Your task to perform on an android device: open wifi settings Image 0: 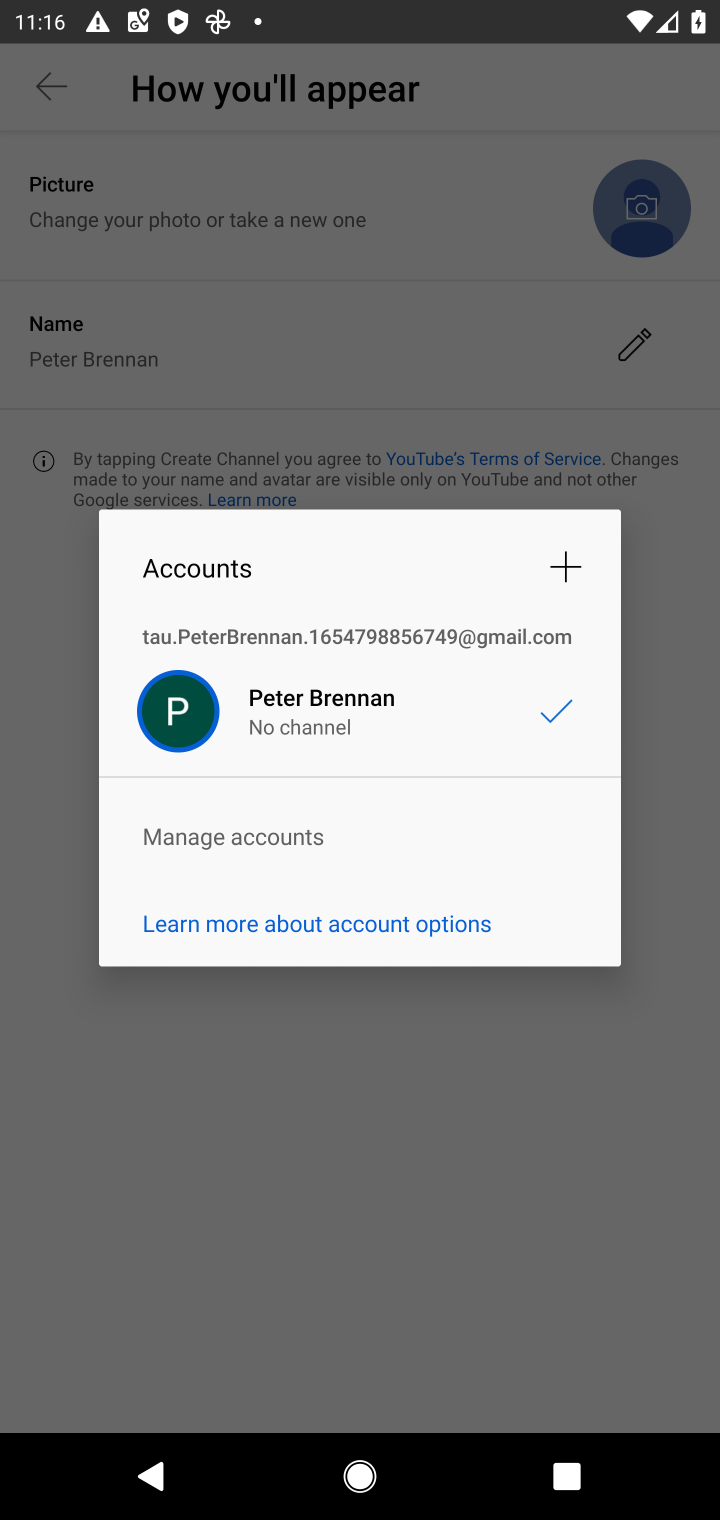
Step 0: press home button
Your task to perform on an android device: open wifi settings Image 1: 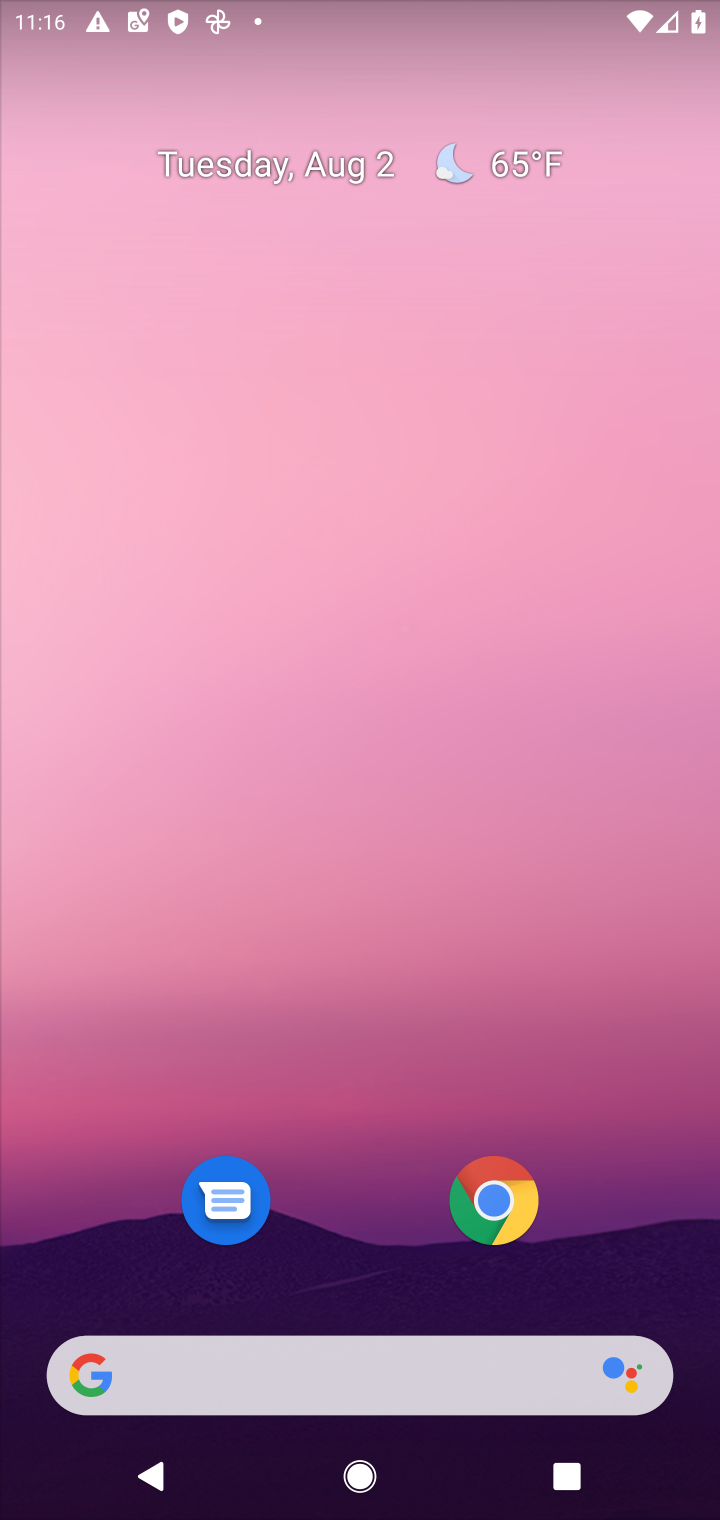
Step 1: drag from (651, 1269) to (599, 245)
Your task to perform on an android device: open wifi settings Image 2: 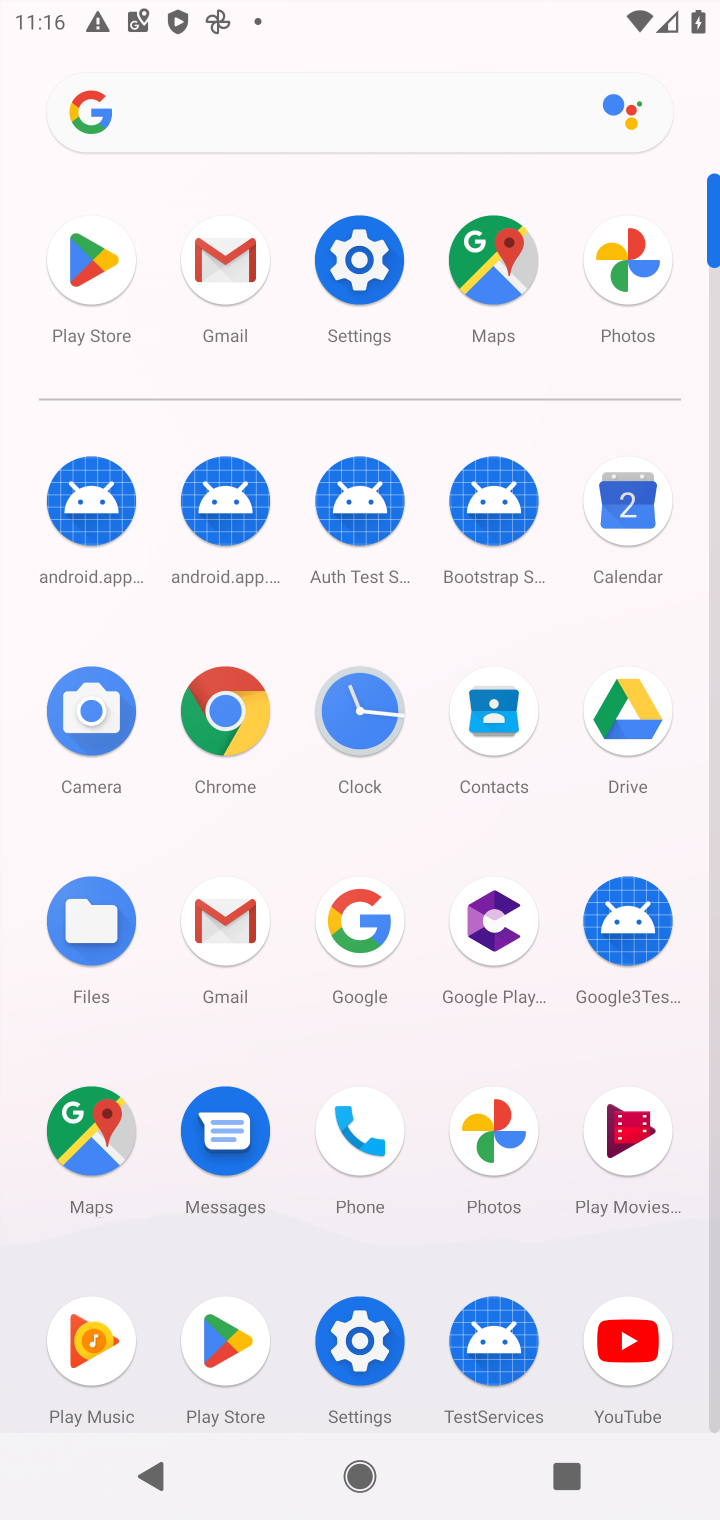
Step 2: click (362, 1342)
Your task to perform on an android device: open wifi settings Image 3: 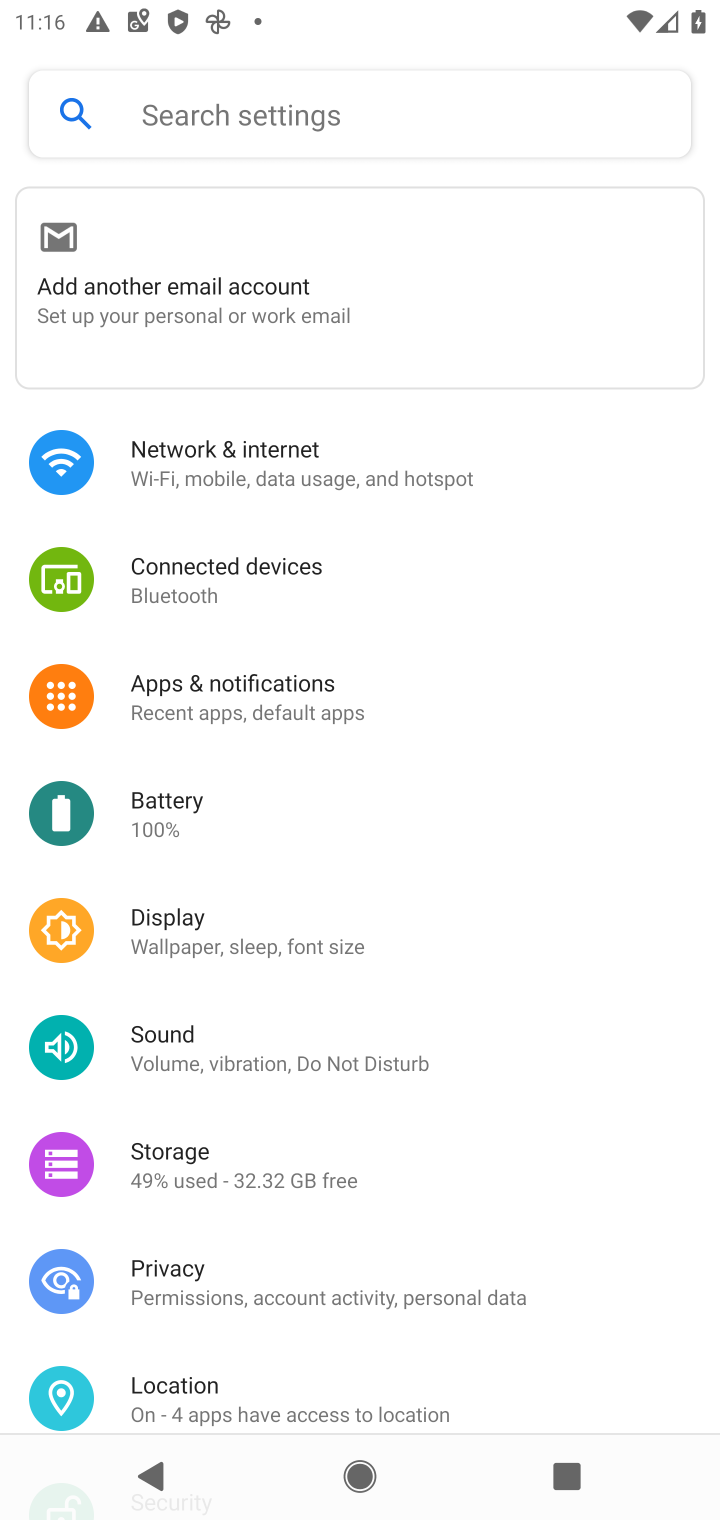
Step 3: click (196, 447)
Your task to perform on an android device: open wifi settings Image 4: 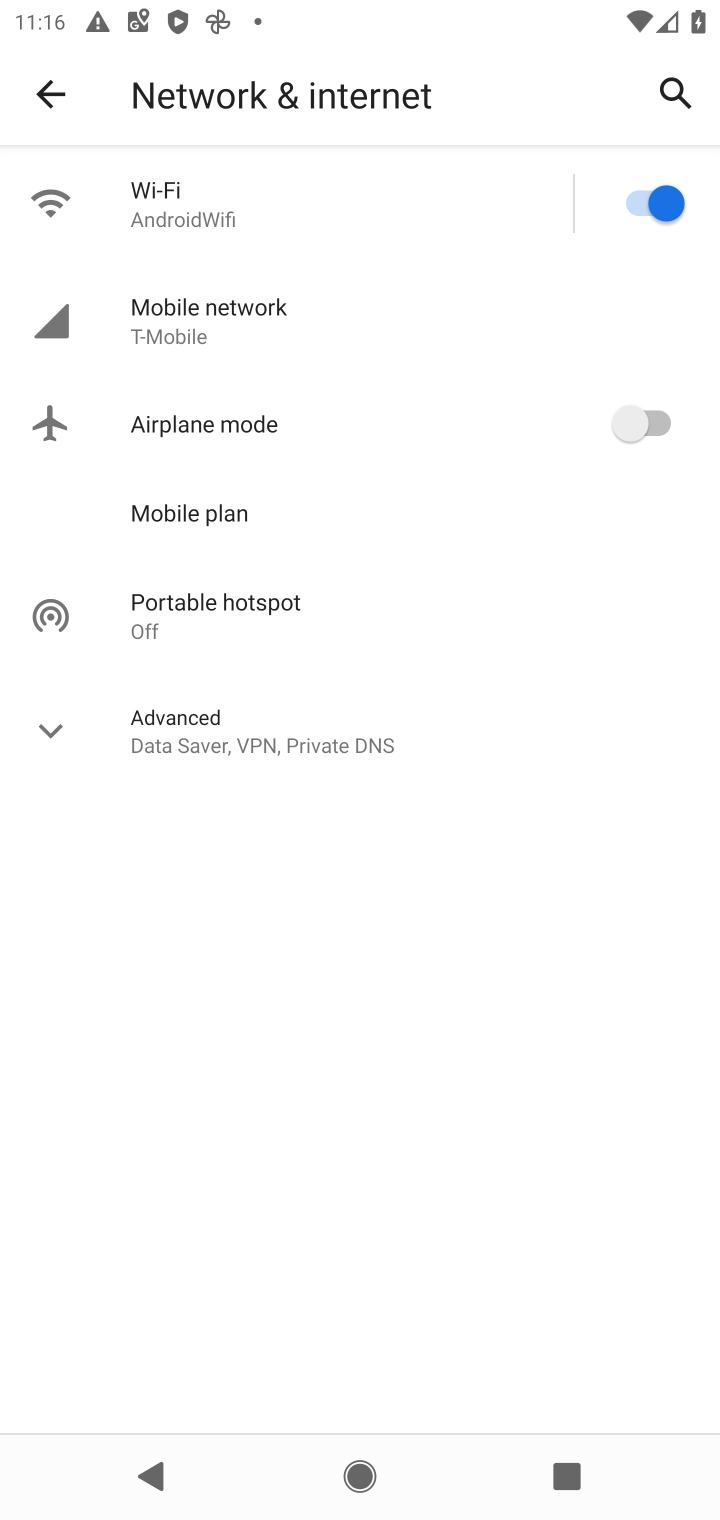
Step 4: click (112, 197)
Your task to perform on an android device: open wifi settings Image 5: 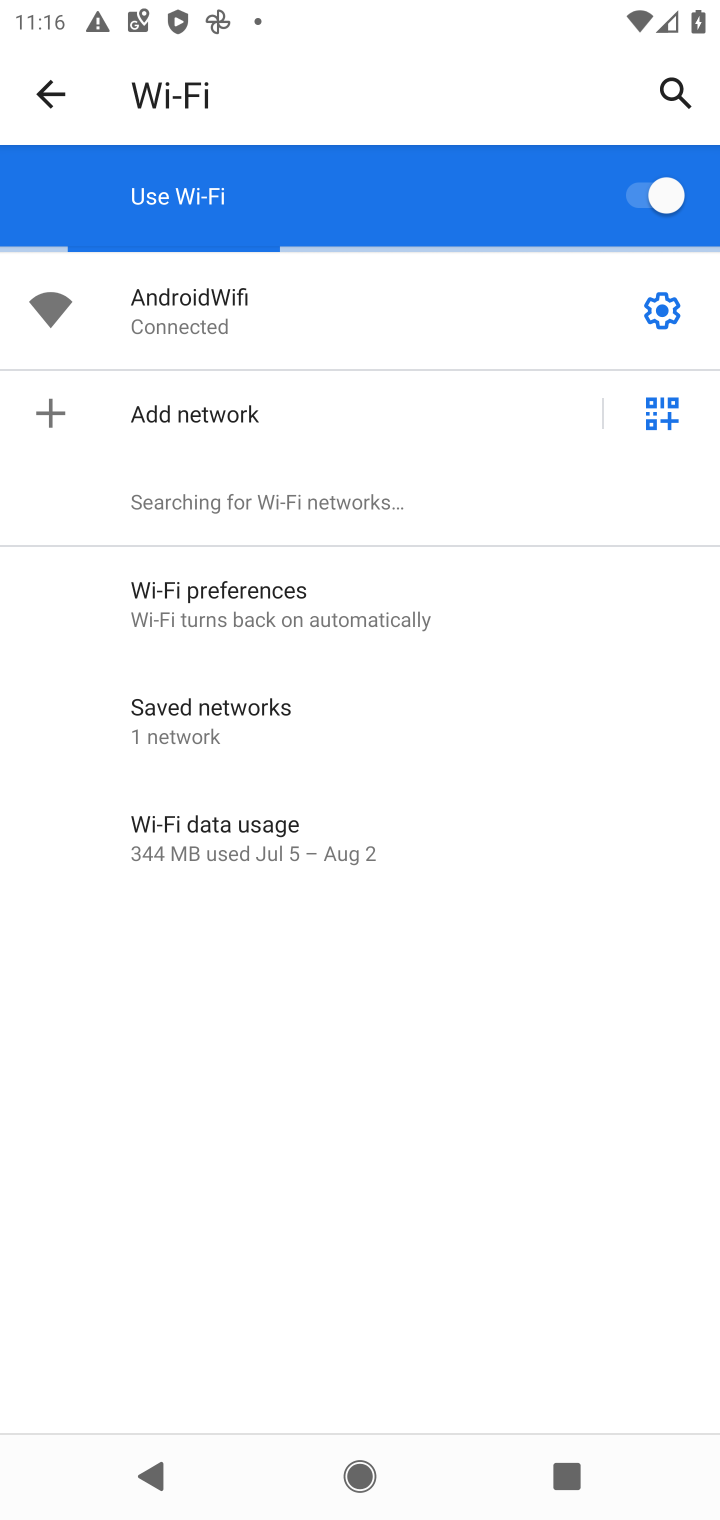
Step 5: task complete